Your task to perform on an android device: Go to network settings Image 0: 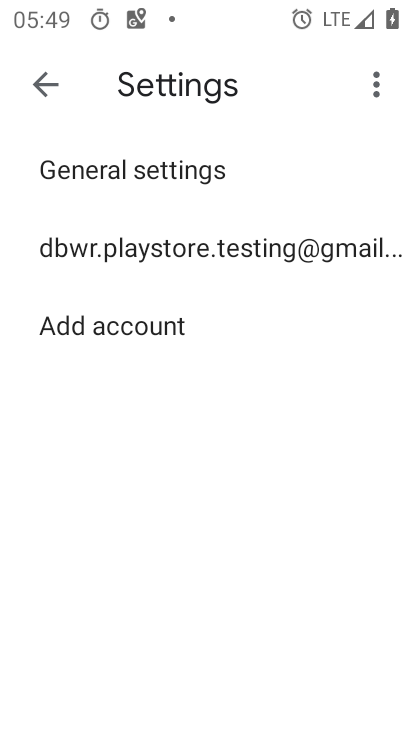
Step 0: press home button
Your task to perform on an android device: Go to network settings Image 1: 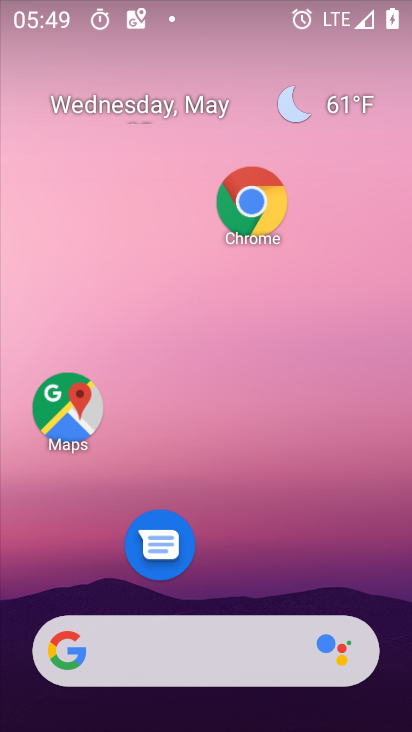
Step 1: drag from (168, 620) to (174, 318)
Your task to perform on an android device: Go to network settings Image 2: 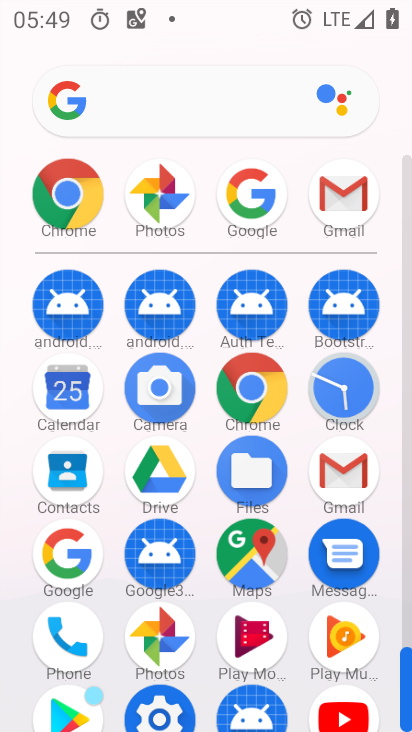
Step 2: drag from (210, 682) to (203, 360)
Your task to perform on an android device: Go to network settings Image 3: 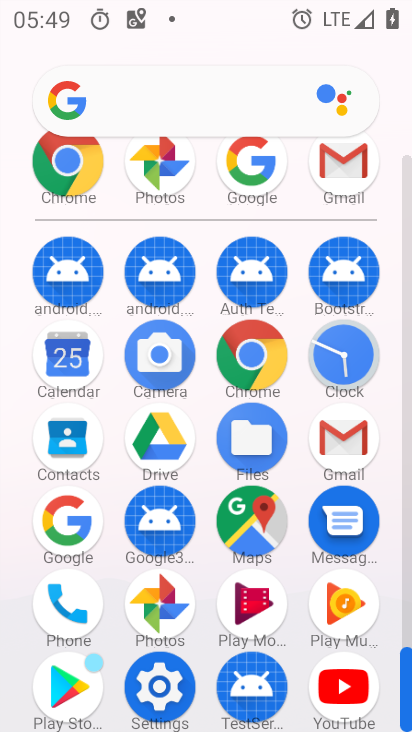
Step 3: click (161, 701)
Your task to perform on an android device: Go to network settings Image 4: 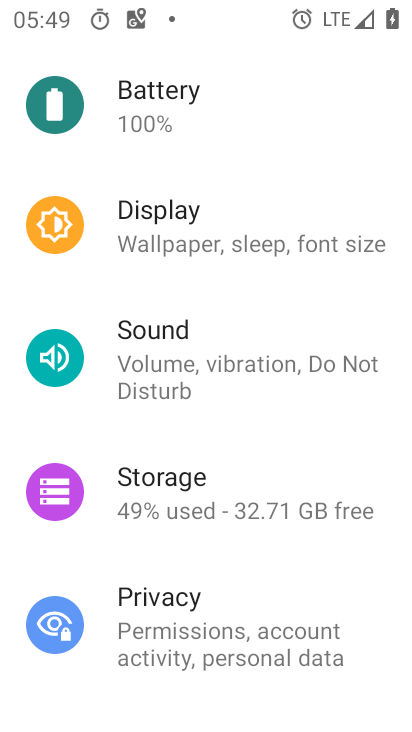
Step 4: drag from (221, 104) to (248, 575)
Your task to perform on an android device: Go to network settings Image 5: 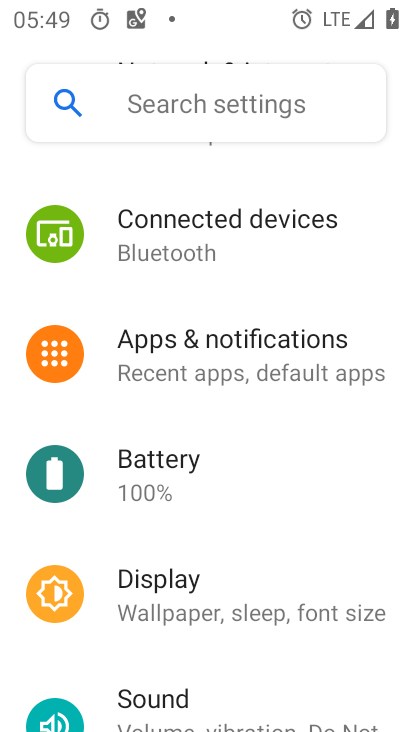
Step 5: drag from (253, 255) to (261, 627)
Your task to perform on an android device: Go to network settings Image 6: 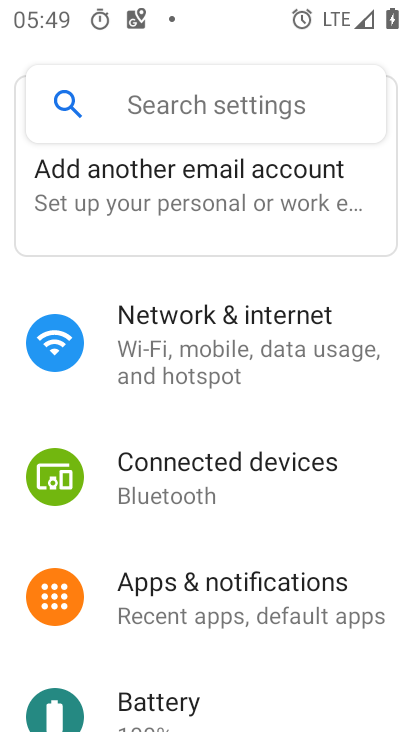
Step 6: click (162, 346)
Your task to perform on an android device: Go to network settings Image 7: 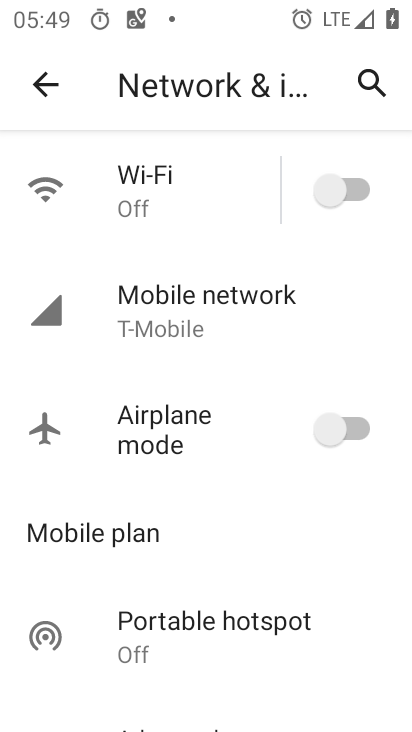
Step 7: task complete